Your task to perform on an android device: empty trash in google photos Image 0: 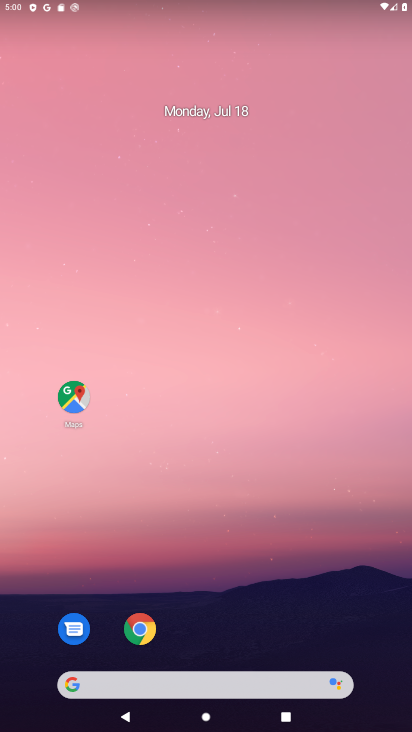
Step 0: drag from (250, 521) to (254, 115)
Your task to perform on an android device: empty trash in google photos Image 1: 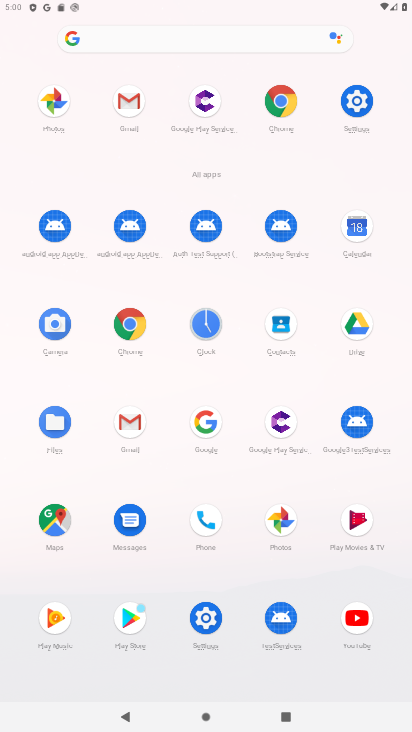
Step 1: click (288, 514)
Your task to perform on an android device: empty trash in google photos Image 2: 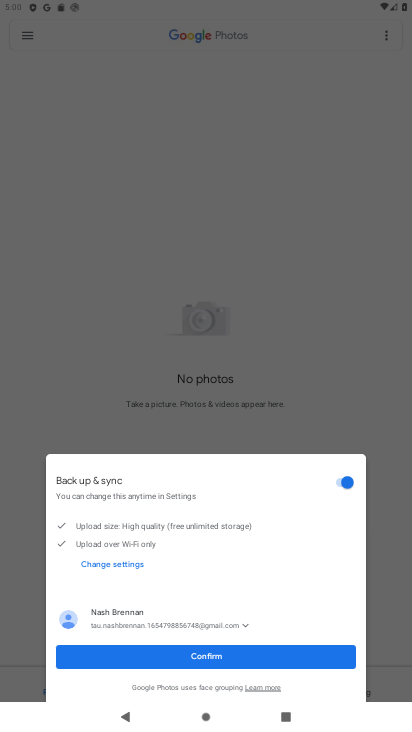
Step 2: click (314, 655)
Your task to perform on an android device: empty trash in google photos Image 3: 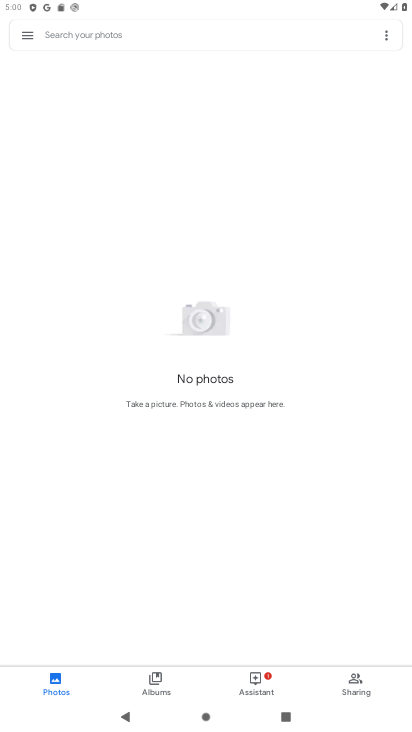
Step 3: click (39, 37)
Your task to perform on an android device: empty trash in google photos Image 4: 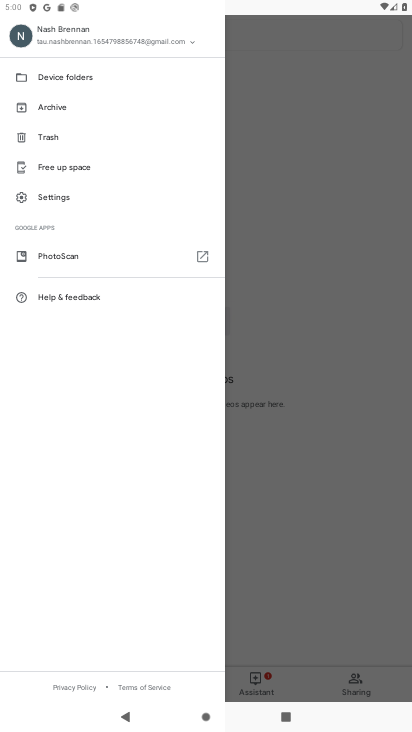
Step 4: click (61, 137)
Your task to perform on an android device: empty trash in google photos Image 5: 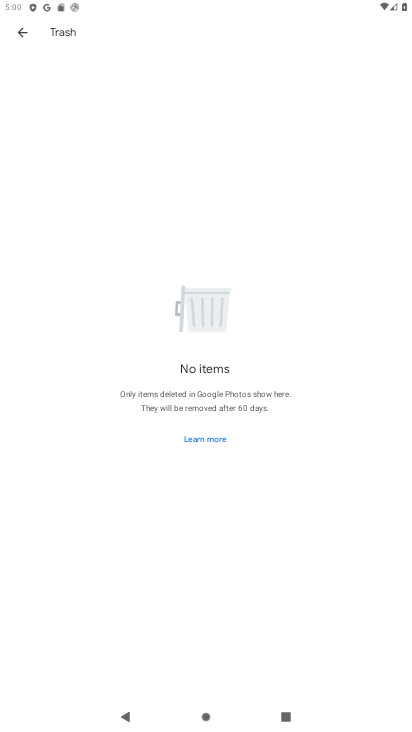
Step 5: task complete